Your task to perform on an android device: open app "Google Play services" Image 0: 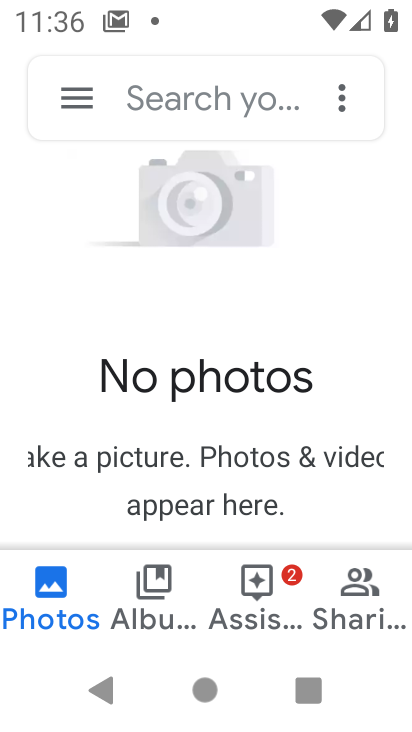
Step 0: press home button
Your task to perform on an android device: open app "Google Play services" Image 1: 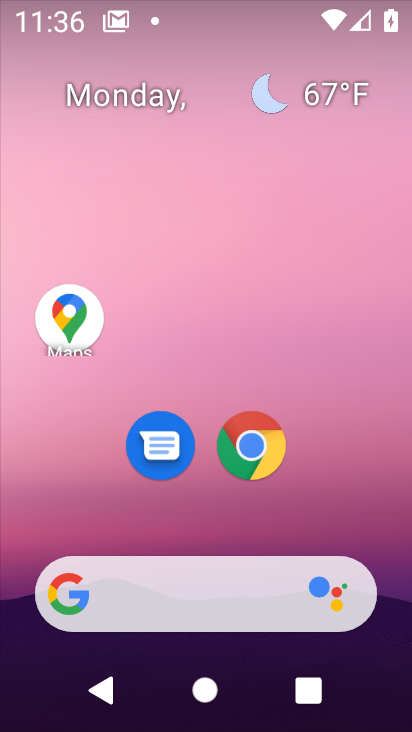
Step 1: drag from (255, 633) to (253, 164)
Your task to perform on an android device: open app "Google Play services" Image 2: 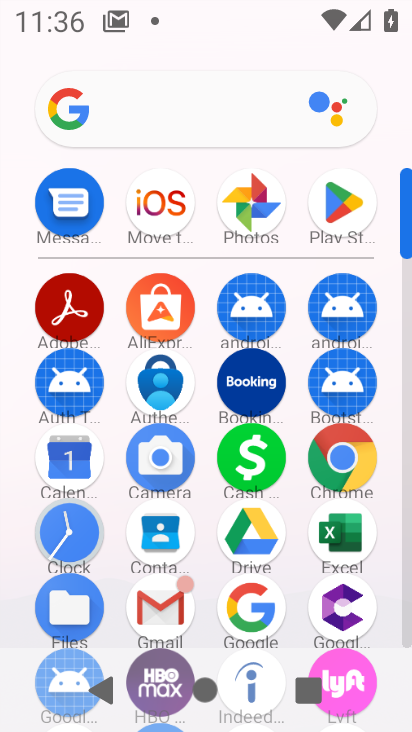
Step 2: click (339, 207)
Your task to perform on an android device: open app "Google Play services" Image 3: 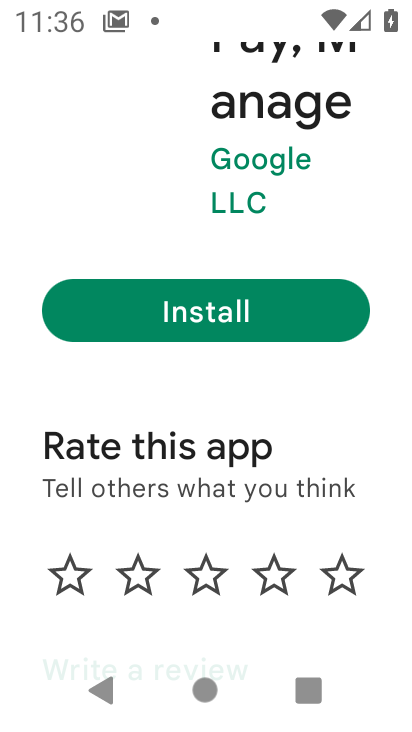
Step 3: drag from (265, 117) to (147, 599)
Your task to perform on an android device: open app "Google Play services" Image 4: 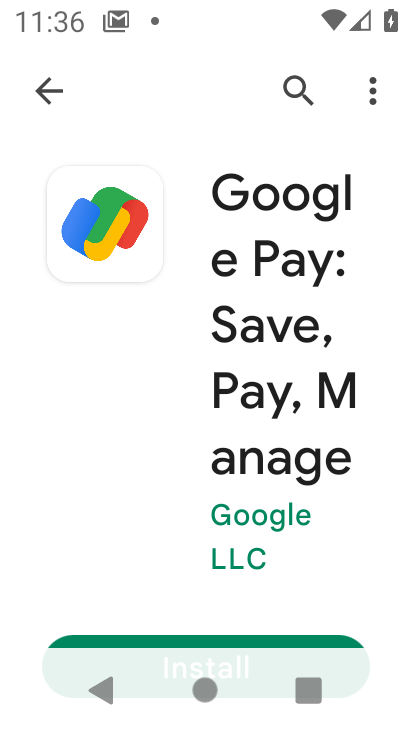
Step 4: click (58, 99)
Your task to perform on an android device: open app "Google Play services" Image 5: 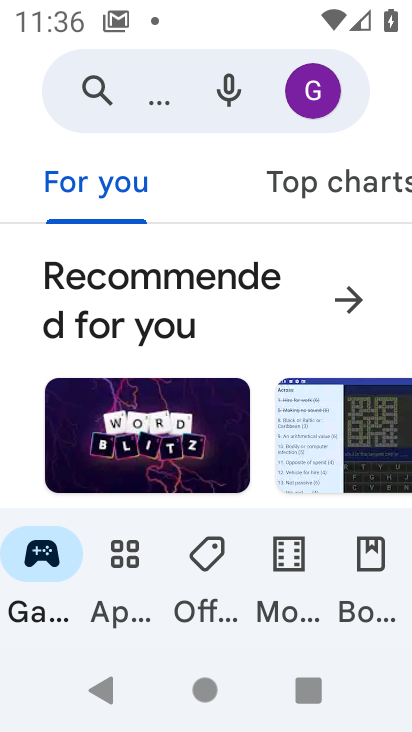
Step 5: click (91, 87)
Your task to perform on an android device: open app "Google Play services" Image 6: 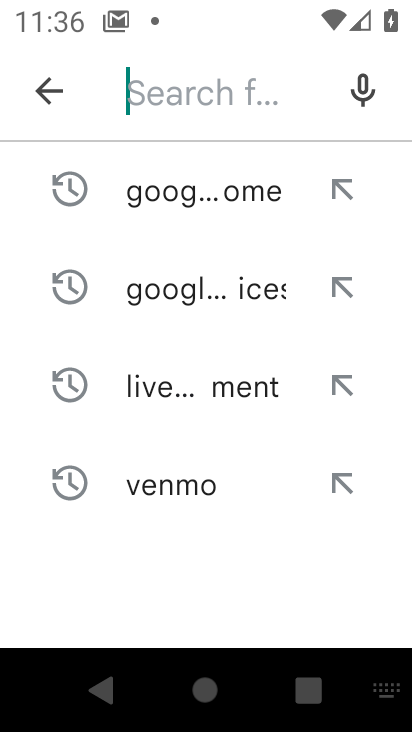
Step 6: type "Google Play services"
Your task to perform on an android device: open app "Google Play services" Image 7: 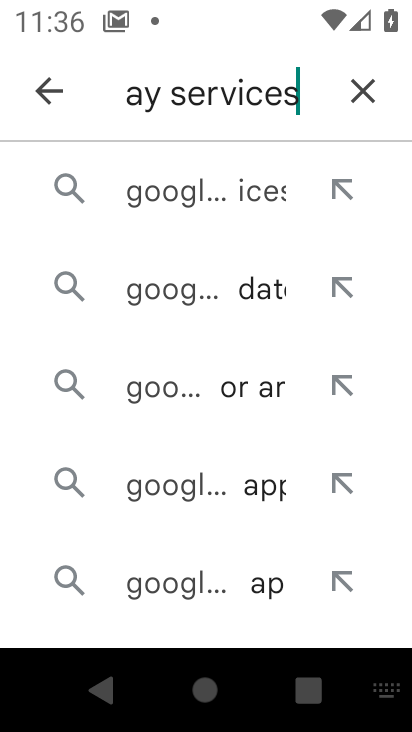
Step 7: type ""
Your task to perform on an android device: open app "Google Play services" Image 8: 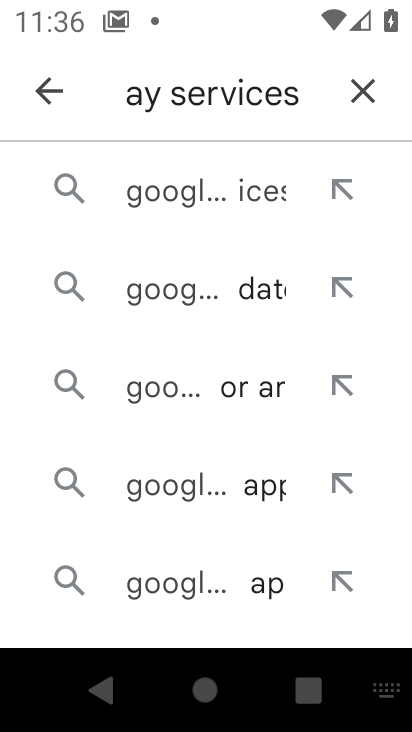
Step 8: click (238, 189)
Your task to perform on an android device: open app "Google Play services" Image 9: 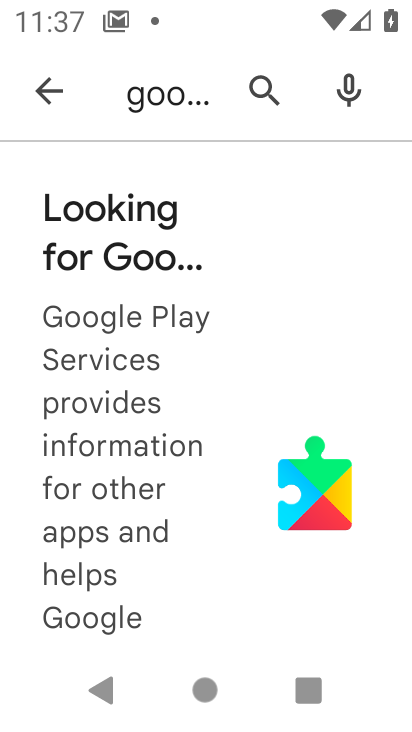
Step 9: drag from (213, 540) to (210, 118)
Your task to perform on an android device: open app "Google Play services" Image 10: 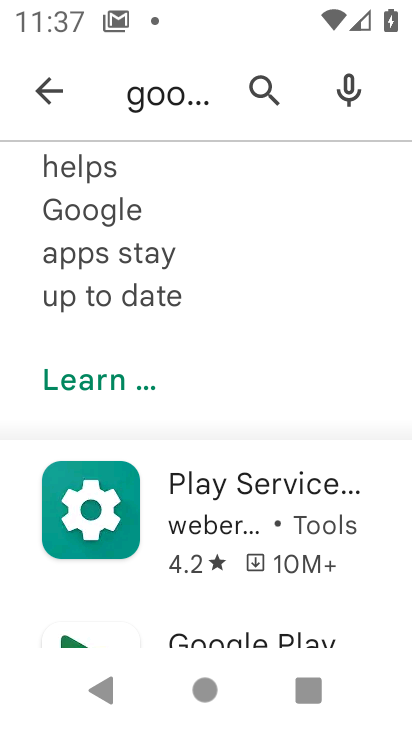
Step 10: click (102, 386)
Your task to perform on an android device: open app "Google Play services" Image 11: 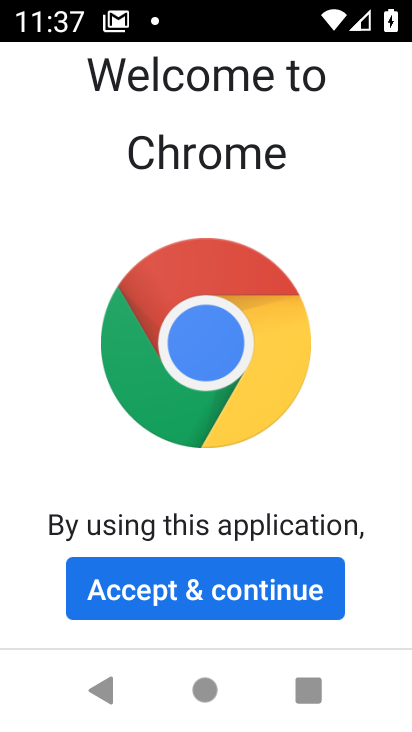
Step 11: task complete